Your task to perform on an android device: Search for flights from Sydney to Buenos aires Image 0: 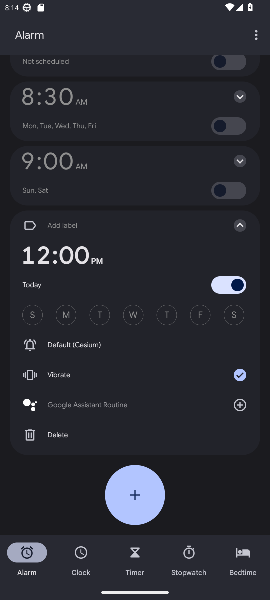
Step 0: press home button
Your task to perform on an android device: Search for flights from Sydney to Buenos aires Image 1: 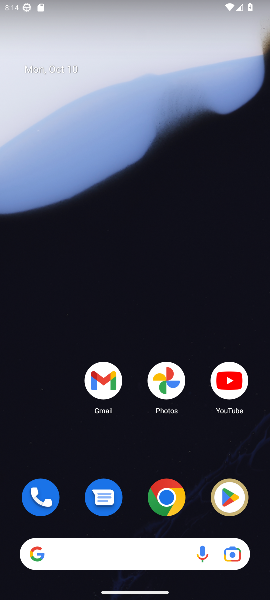
Step 1: drag from (131, 247) to (135, 169)
Your task to perform on an android device: Search for flights from Sydney to Buenos aires Image 2: 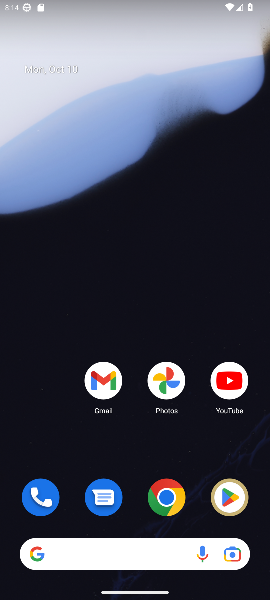
Step 2: drag from (89, 479) to (87, 191)
Your task to perform on an android device: Search for flights from Sydney to Buenos aires Image 3: 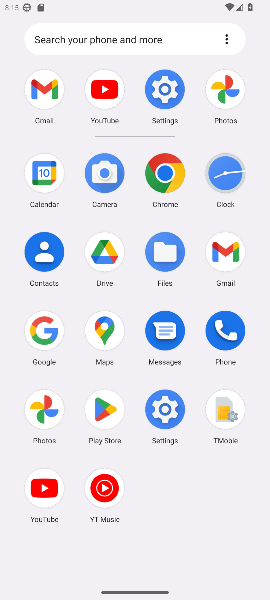
Step 3: click (39, 322)
Your task to perform on an android device: Search for flights from Sydney to Buenos aires Image 4: 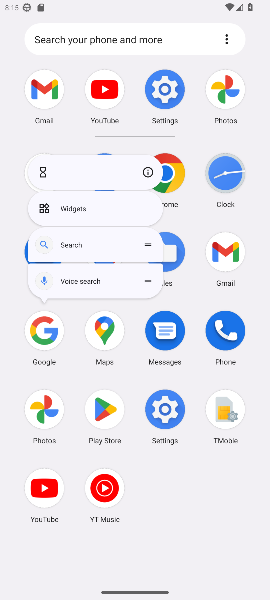
Step 4: click (31, 337)
Your task to perform on an android device: Search for flights from Sydney to Buenos aires Image 5: 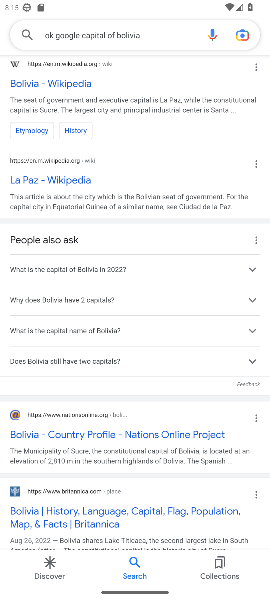
Step 5: click (131, 33)
Your task to perform on an android device: Search for flights from Sydney to Buenos aires Image 6: 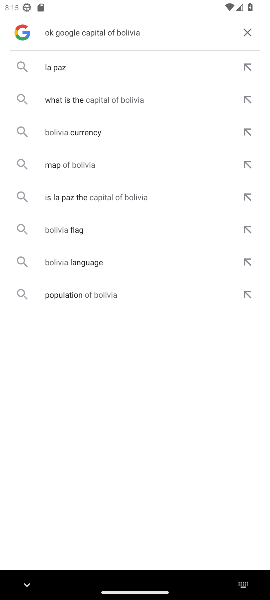
Step 6: click (246, 32)
Your task to perform on an android device: Search for flights from Sydney to Buenos aires Image 7: 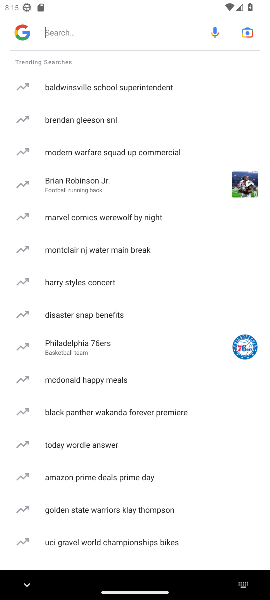
Step 7: click (129, 37)
Your task to perform on an android device: Search for flights from Sydney to Buenos aires Image 8: 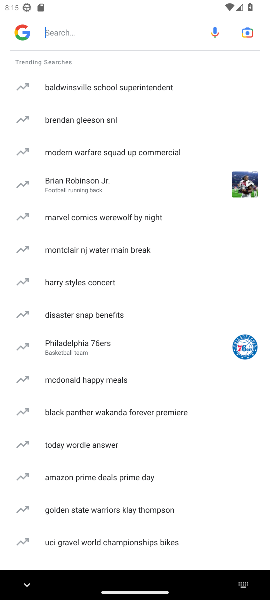
Step 8: type "flights from Sydney to Buenos aires "
Your task to perform on an android device: Search for flights from Sydney to Buenos aires Image 9: 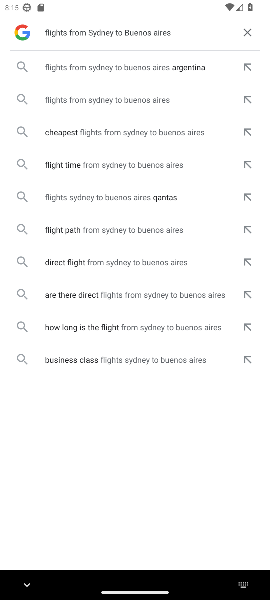
Step 9: click (110, 68)
Your task to perform on an android device: Search for flights from Sydney to Buenos aires Image 10: 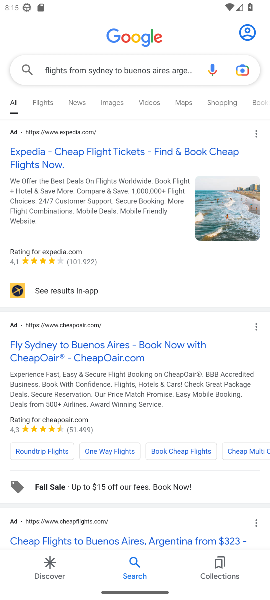
Step 10: click (94, 354)
Your task to perform on an android device: Search for flights from Sydney to Buenos aires Image 11: 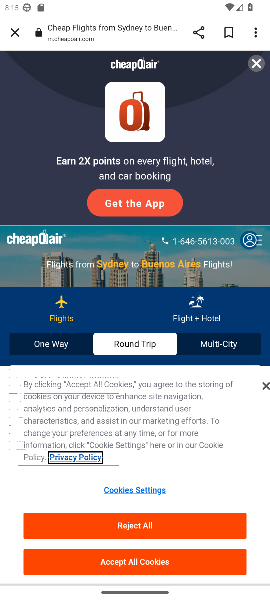
Step 11: click (140, 565)
Your task to perform on an android device: Search for flights from Sydney to Buenos aires Image 12: 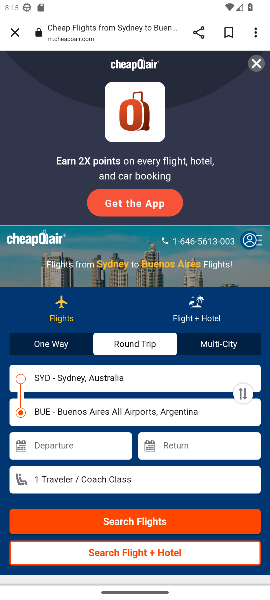
Step 12: click (263, 61)
Your task to perform on an android device: Search for flights from Sydney to Buenos aires Image 13: 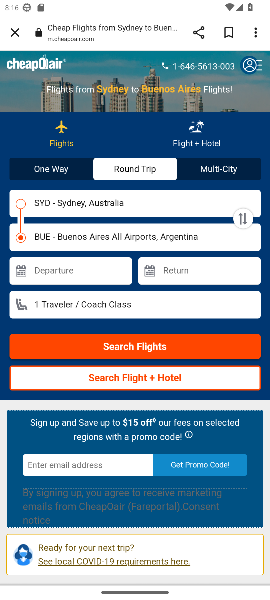
Step 13: click (144, 351)
Your task to perform on an android device: Search for flights from Sydney to Buenos aires Image 14: 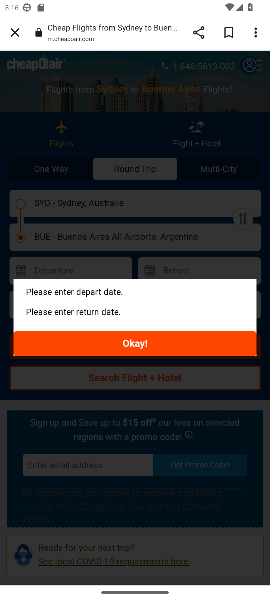
Step 14: click (101, 296)
Your task to perform on an android device: Search for flights from Sydney to Buenos aires Image 15: 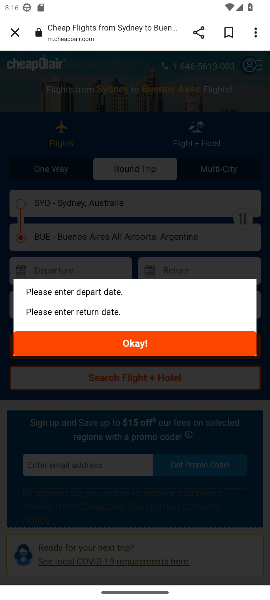
Step 15: click (101, 290)
Your task to perform on an android device: Search for flights from Sydney to Buenos aires Image 16: 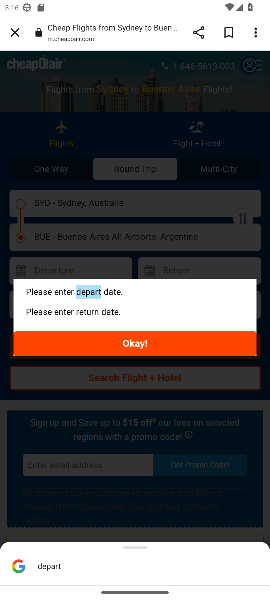
Step 16: click (119, 357)
Your task to perform on an android device: Search for flights from Sydney to Buenos aires Image 17: 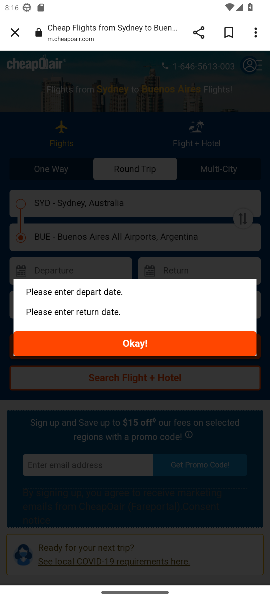
Step 17: click (126, 334)
Your task to perform on an android device: Search for flights from Sydney to Buenos aires Image 18: 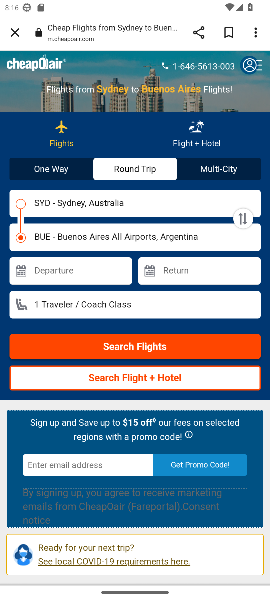
Step 18: task complete